Your task to perform on an android device: Go to battery settings Image 0: 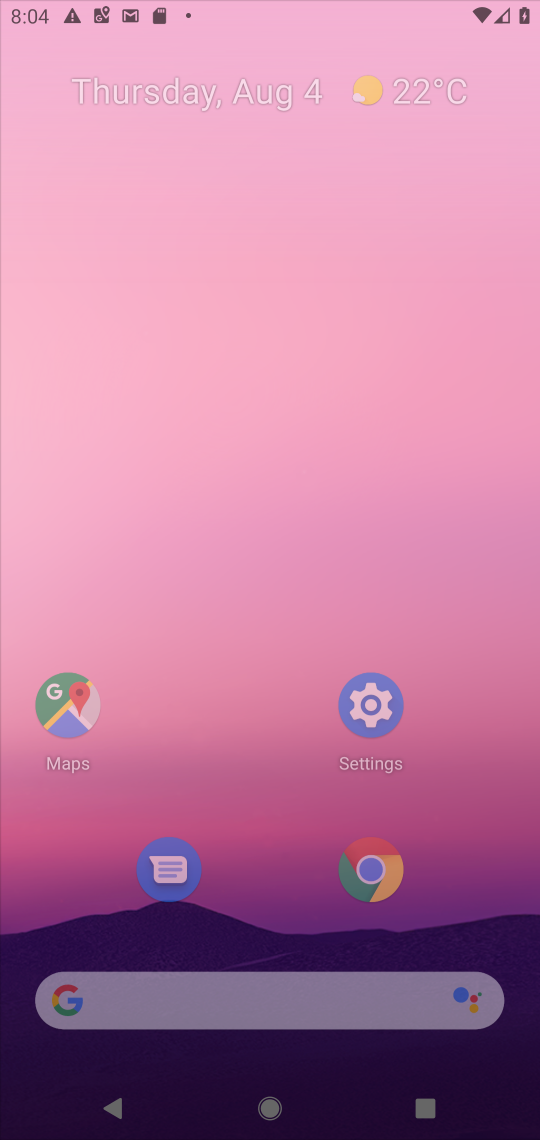
Step 0: press home button
Your task to perform on an android device: Go to battery settings Image 1: 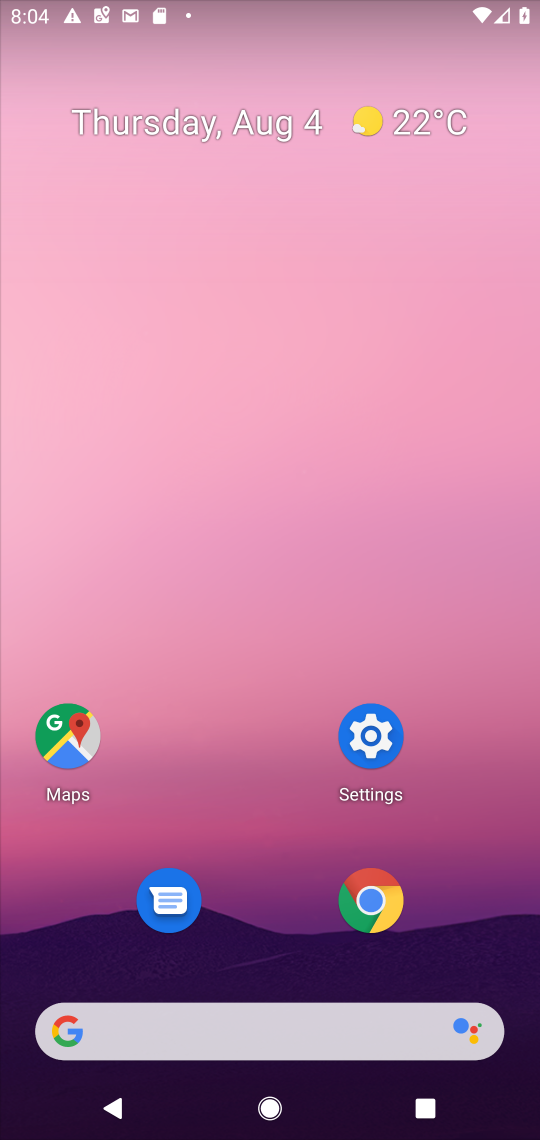
Step 1: click (373, 732)
Your task to perform on an android device: Go to battery settings Image 2: 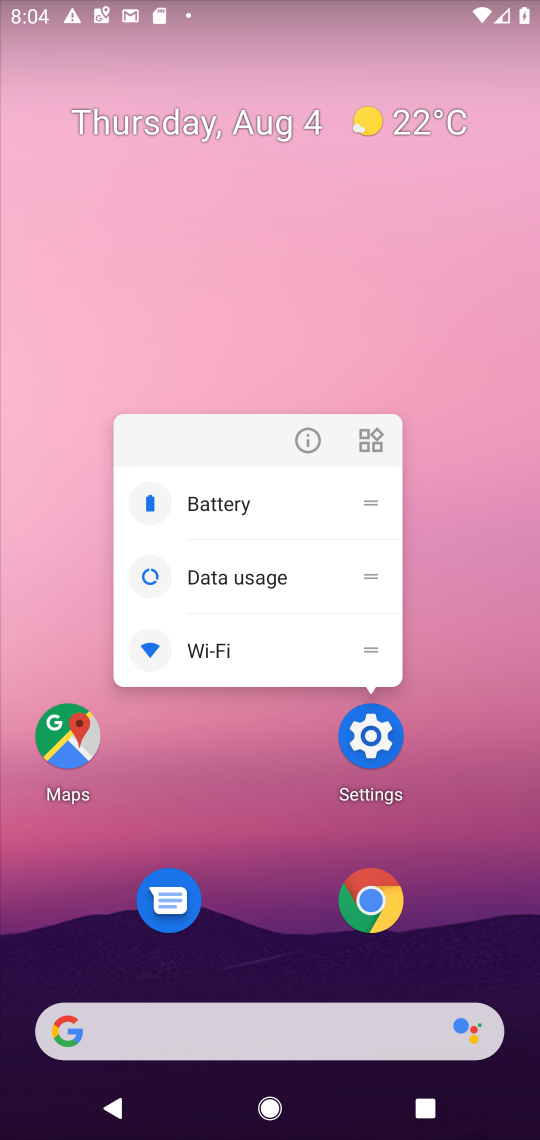
Step 2: click (372, 743)
Your task to perform on an android device: Go to battery settings Image 3: 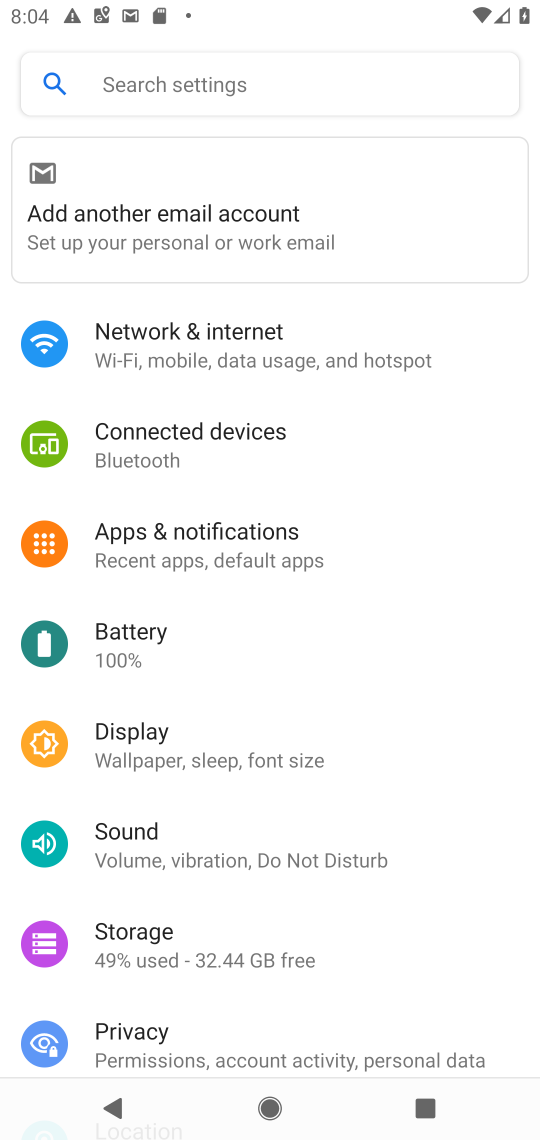
Step 3: click (172, 642)
Your task to perform on an android device: Go to battery settings Image 4: 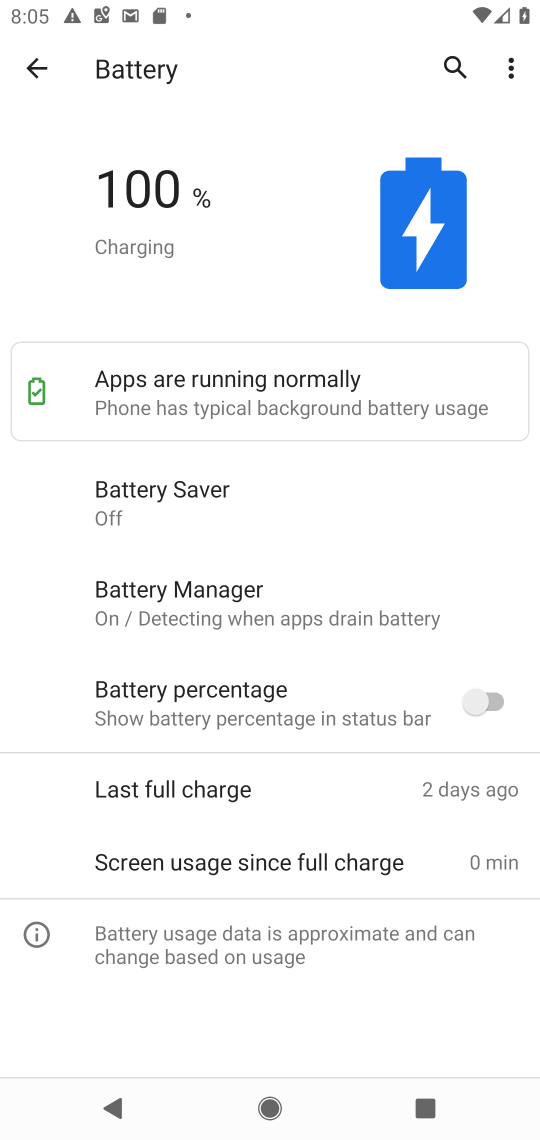
Step 4: task complete